Your task to perform on an android device: Open notification settings Image 0: 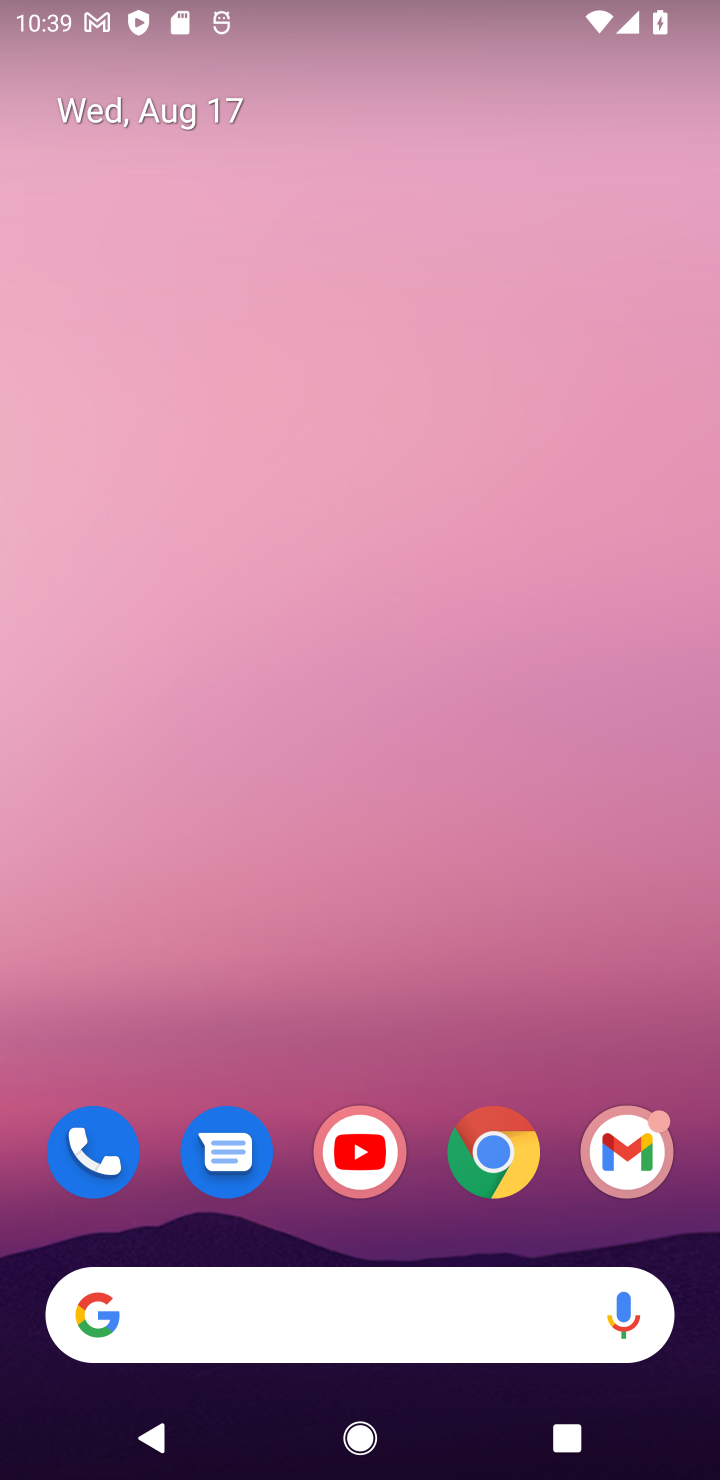
Step 0: drag from (550, 1215) to (375, 40)
Your task to perform on an android device: Open notification settings Image 1: 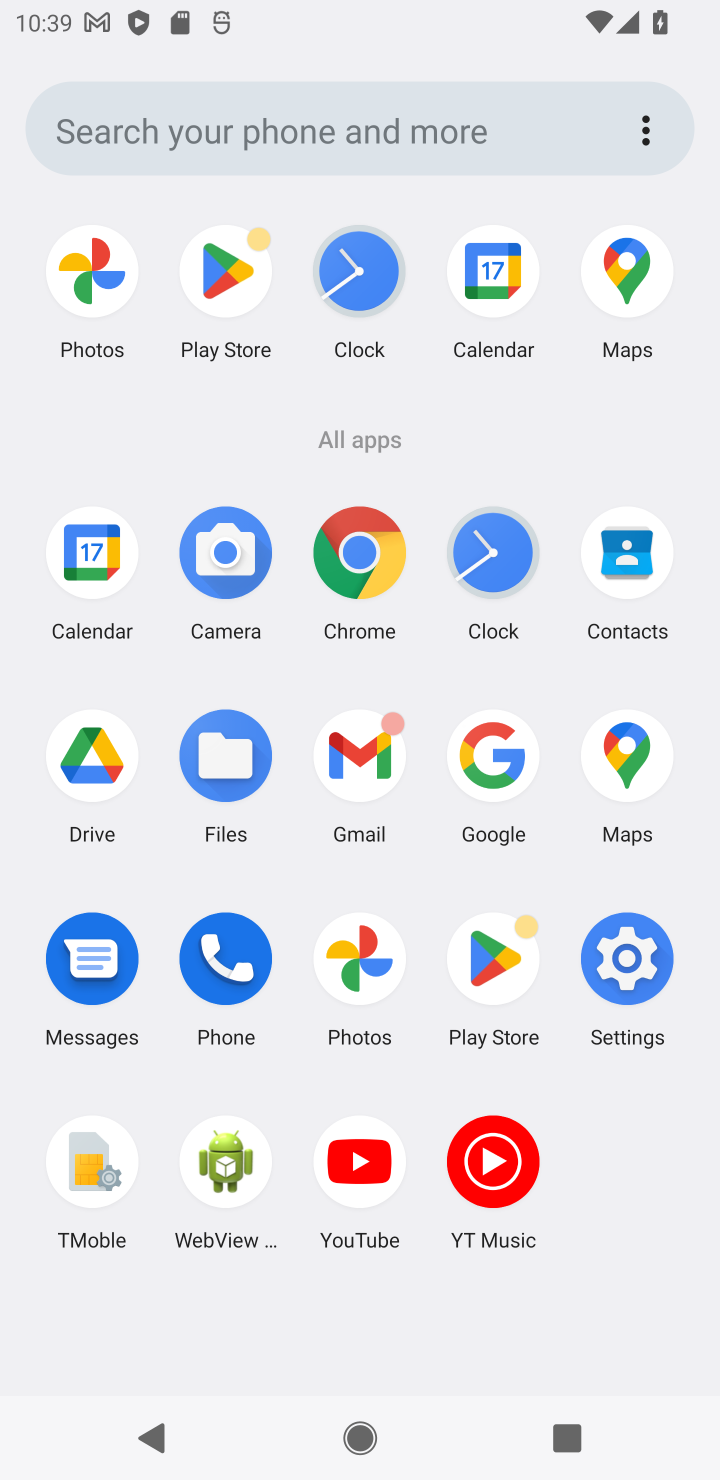
Step 1: click (611, 968)
Your task to perform on an android device: Open notification settings Image 2: 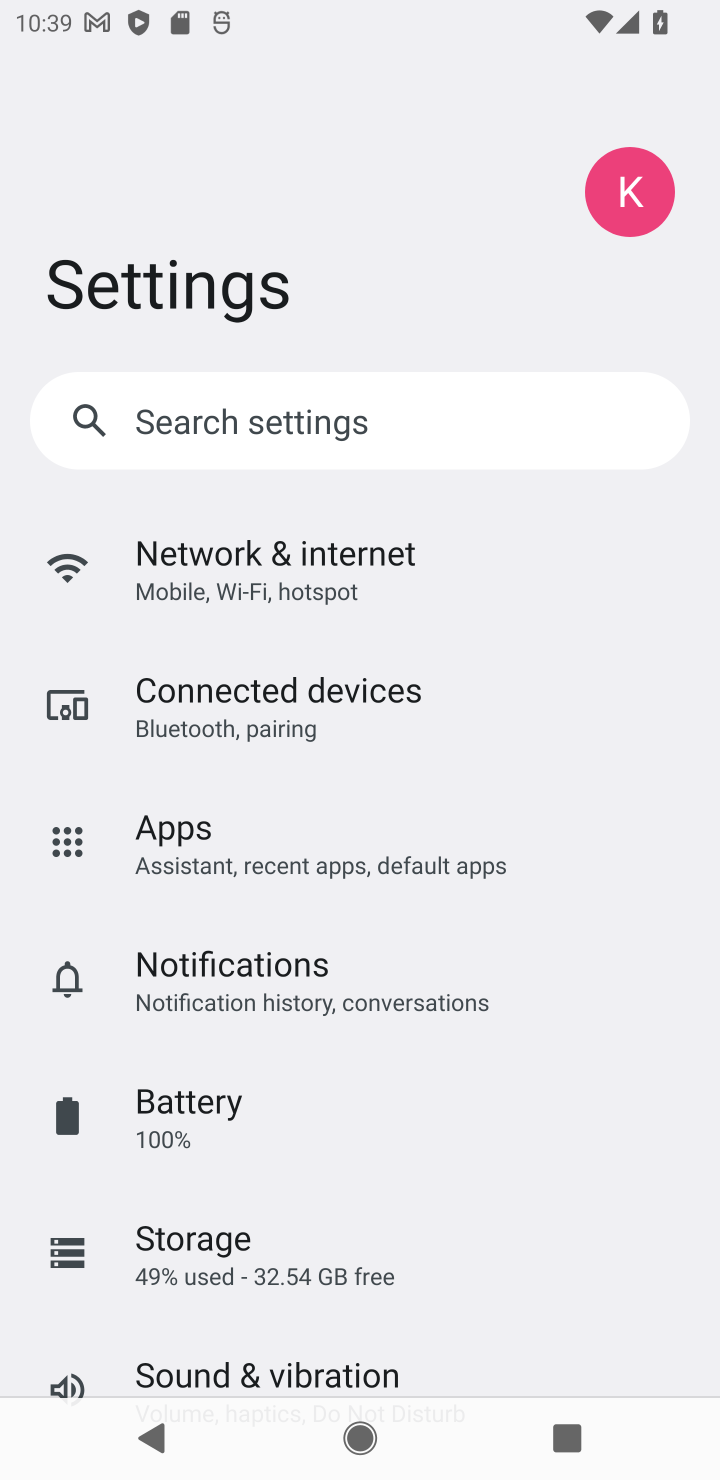
Step 2: click (246, 976)
Your task to perform on an android device: Open notification settings Image 3: 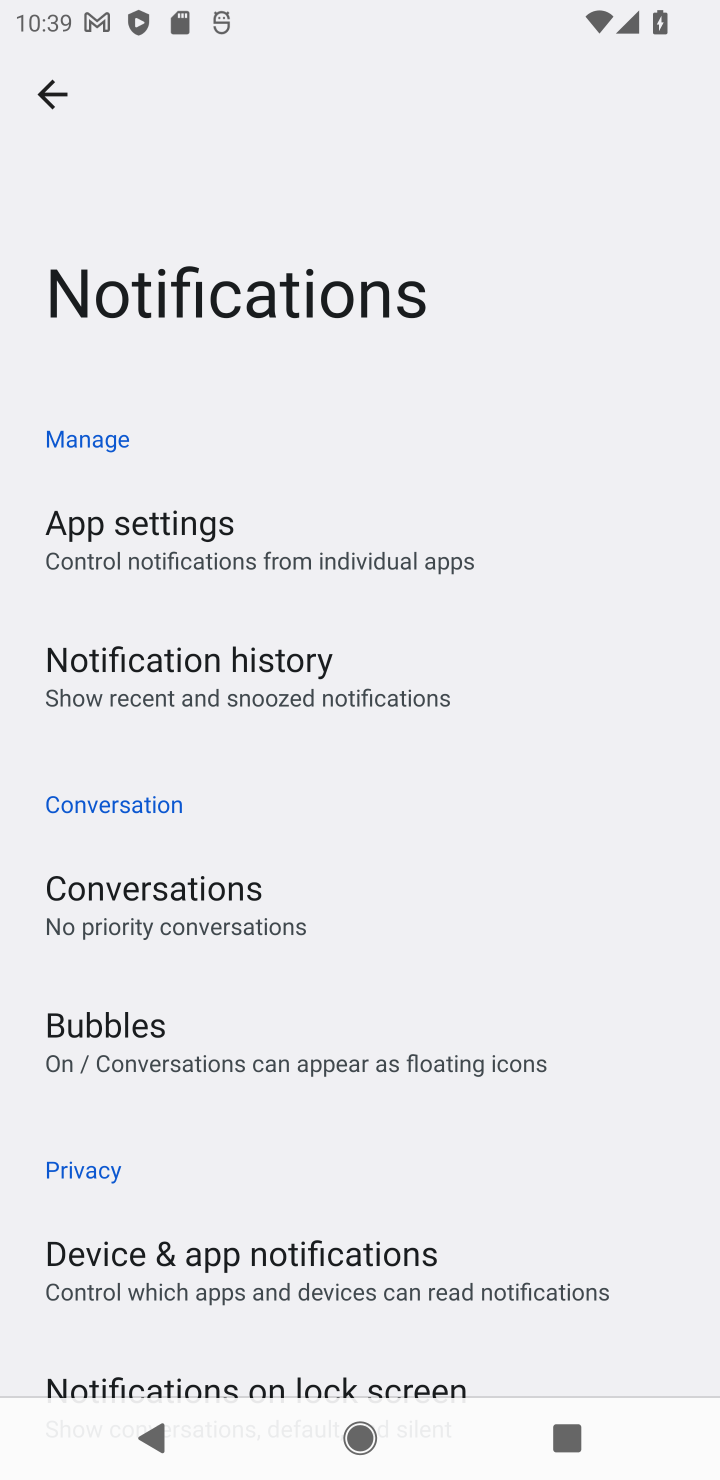
Step 3: task complete